Your task to perform on an android device: Open maps Image 0: 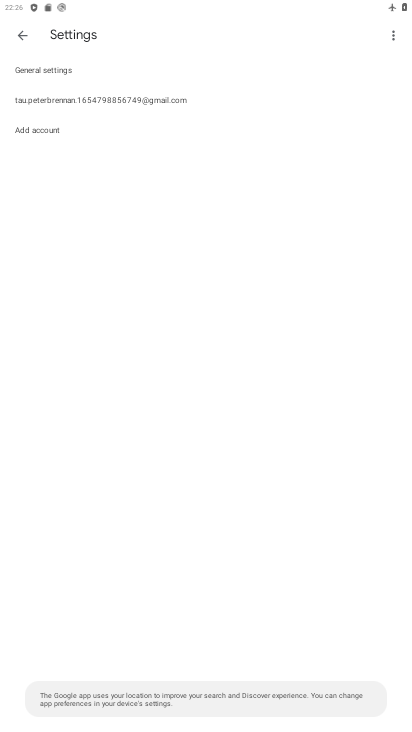
Step 0: press home button
Your task to perform on an android device: Open maps Image 1: 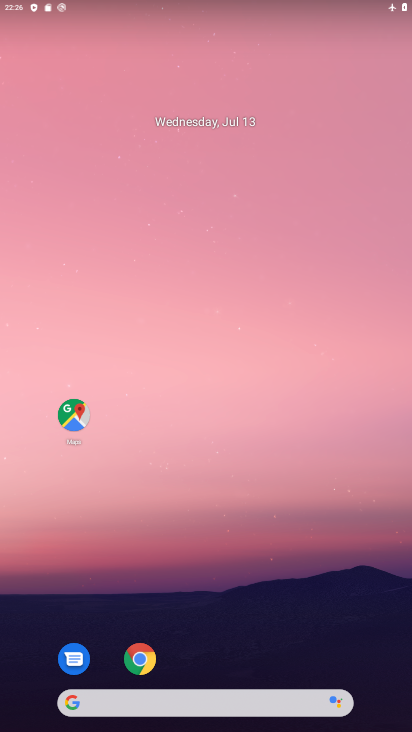
Step 1: click (73, 416)
Your task to perform on an android device: Open maps Image 2: 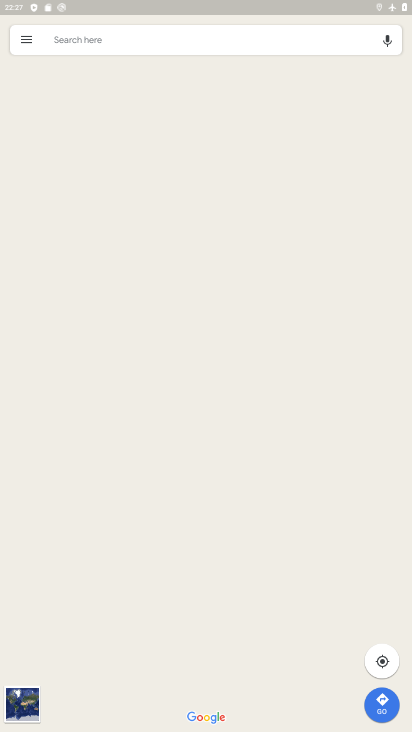
Step 2: task complete